Your task to perform on an android device: check out phone information Image 0: 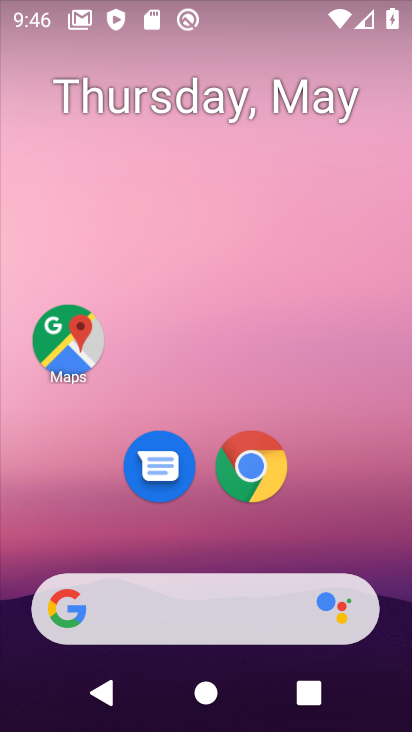
Step 0: drag from (319, 514) to (295, 67)
Your task to perform on an android device: check out phone information Image 1: 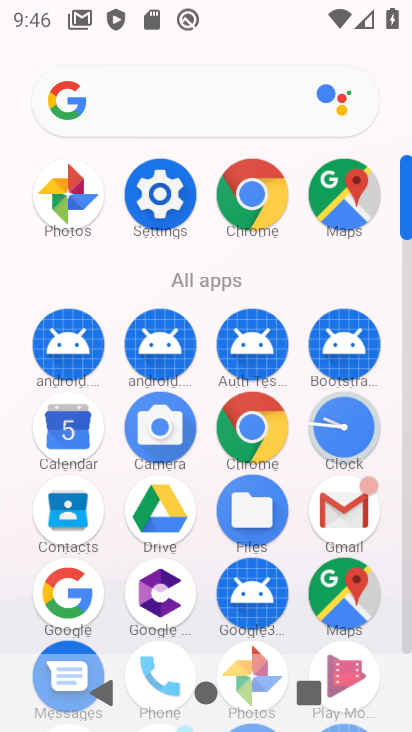
Step 1: click (171, 663)
Your task to perform on an android device: check out phone information Image 2: 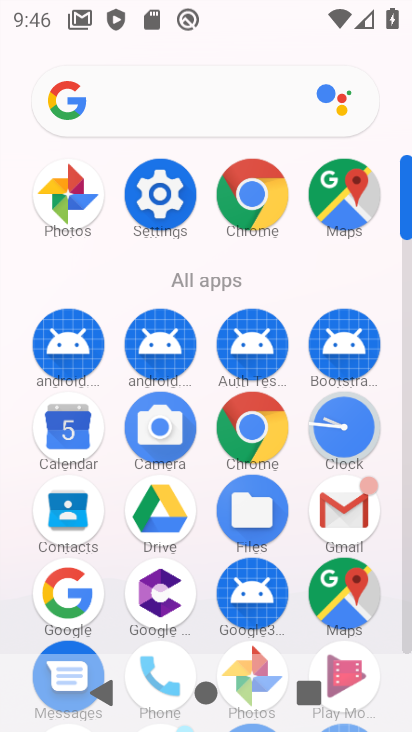
Step 2: click (170, 648)
Your task to perform on an android device: check out phone information Image 3: 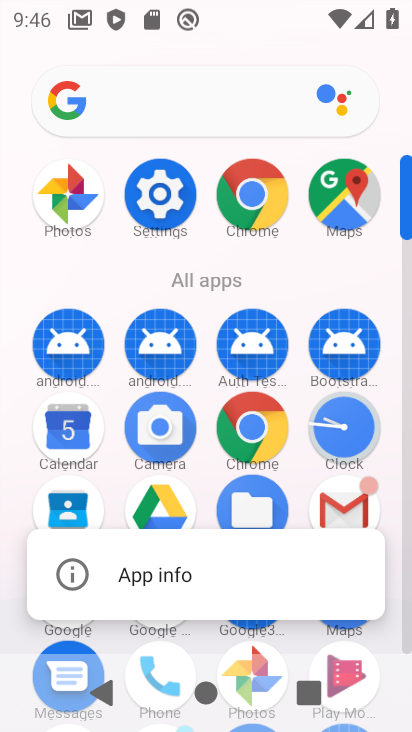
Step 3: click (182, 581)
Your task to perform on an android device: check out phone information Image 4: 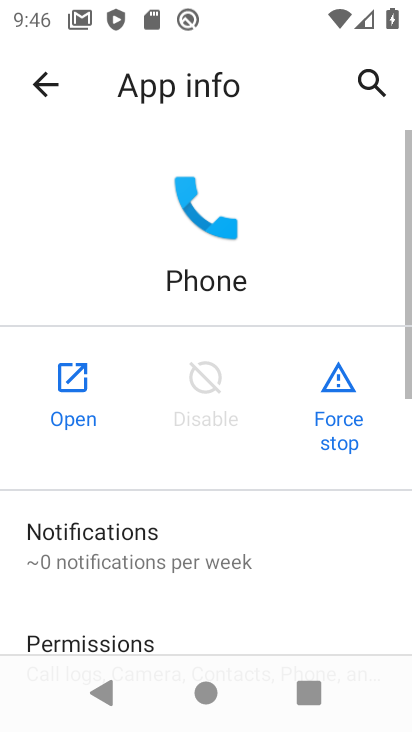
Step 4: task complete